Your task to perform on an android device: turn pop-ups on in chrome Image 0: 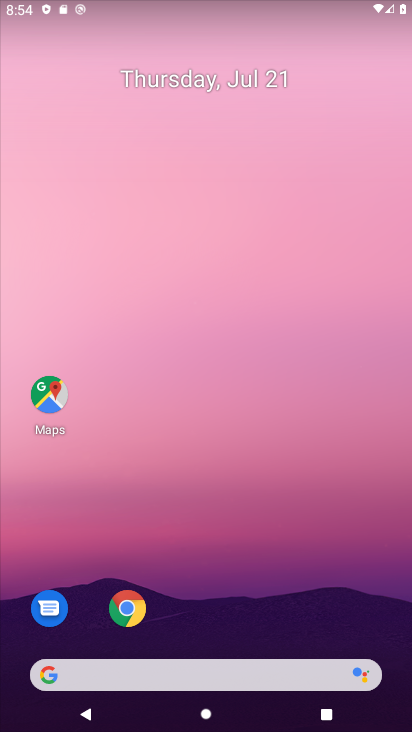
Step 0: click (132, 612)
Your task to perform on an android device: turn pop-ups on in chrome Image 1: 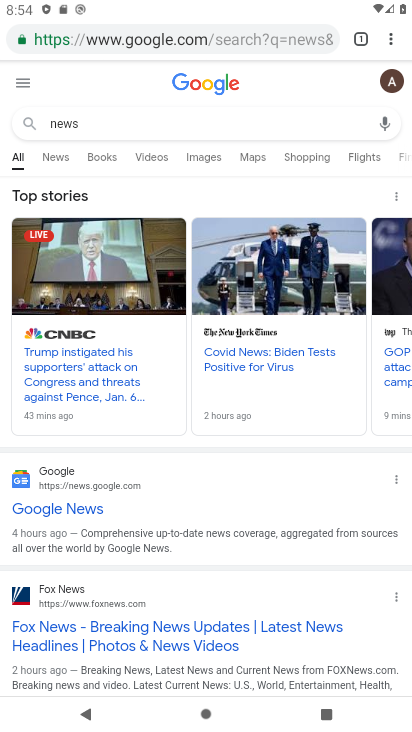
Step 1: click (399, 42)
Your task to perform on an android device: turn pop-ups on in chrome Image 2: 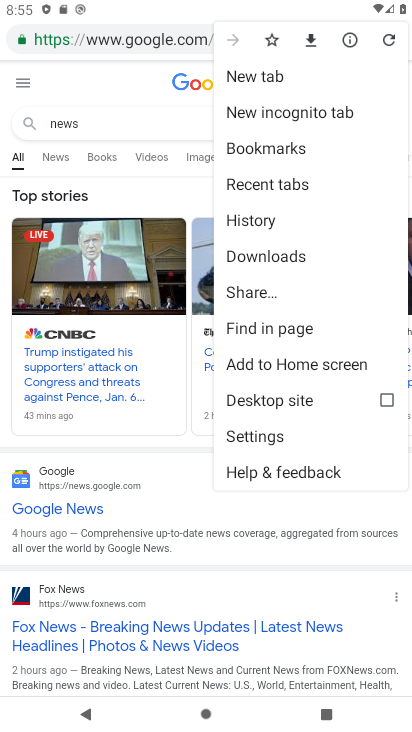
Step 2: click (277, 442)
Your task to perform on an android device: turn pop-ups on in chrome Image 3: 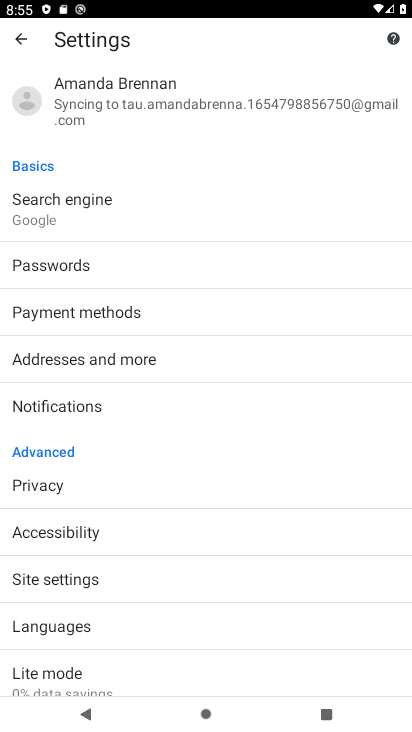
Step 3: click (195, 590)
Your task to perform on an android device: turn pop-ups on in chrome Image 4: 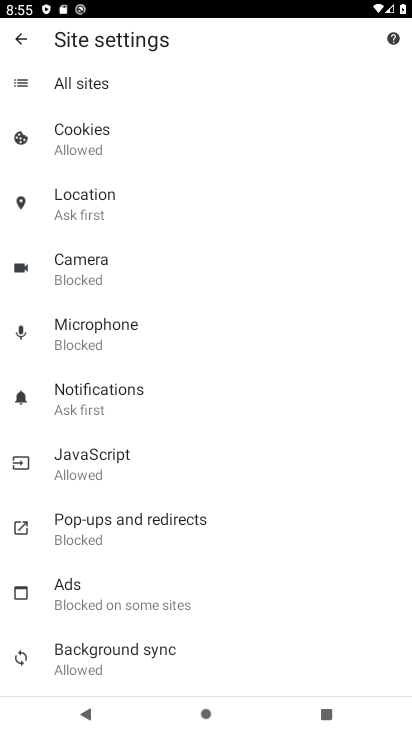
Step 4: click (176, 538)
Your task to perform on an android device: turn pop-ups on in chrome Image 5: 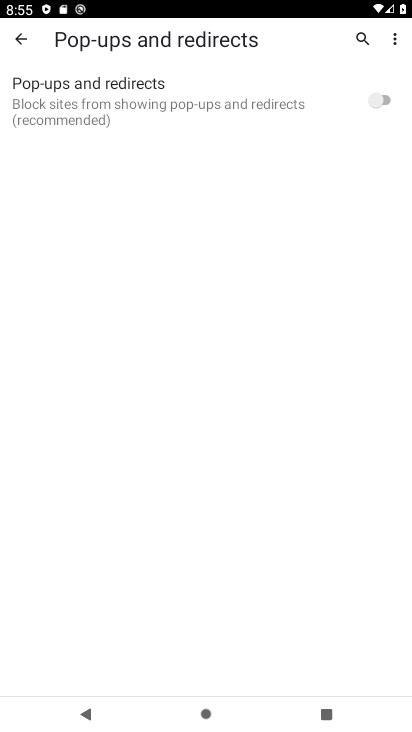
Step 5: click (381, 109)
Your task to perform on an android device: turn pop-ups on in chrome Image 6: 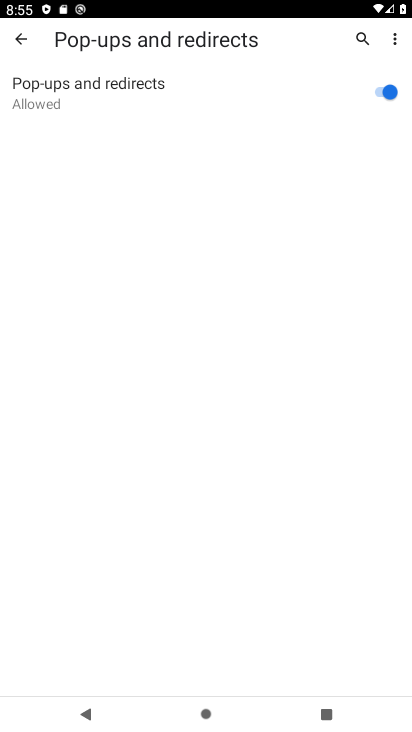
Step 6: task complete